Your task to perform on an android device: Search for Italian restaurants on Maps Image 0: 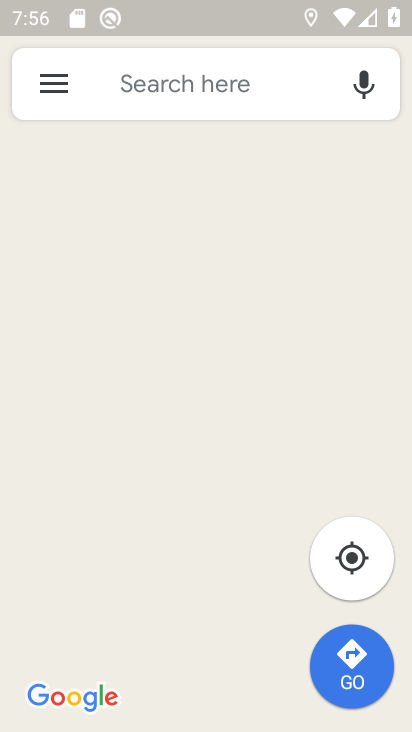
Step 0: press home button
Your task to perform on an android device: Search for Italian restaurants on Maps Image 1: 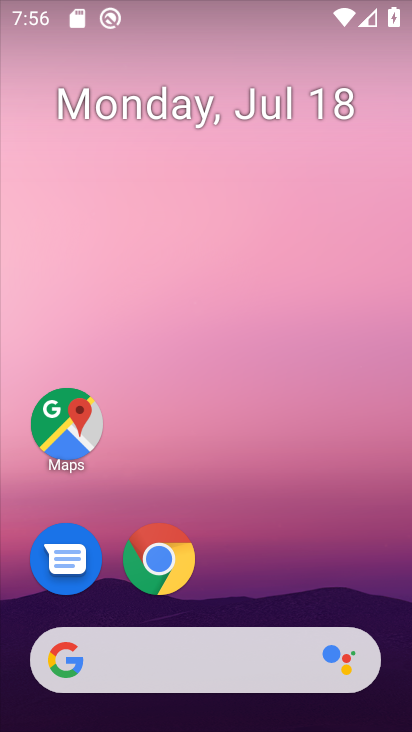
Step 1: drag from (351, 584) to (389, 133)
Your task to perform on an android device: Search for Italian restaurants on Maps Image 2: 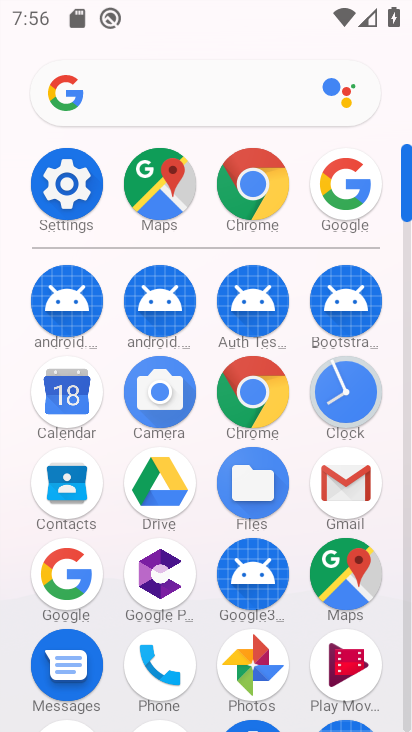
Step 2: click (347, 569)
Your task to perform on an android device: Search for Italian restaurants on Maps Image 3: 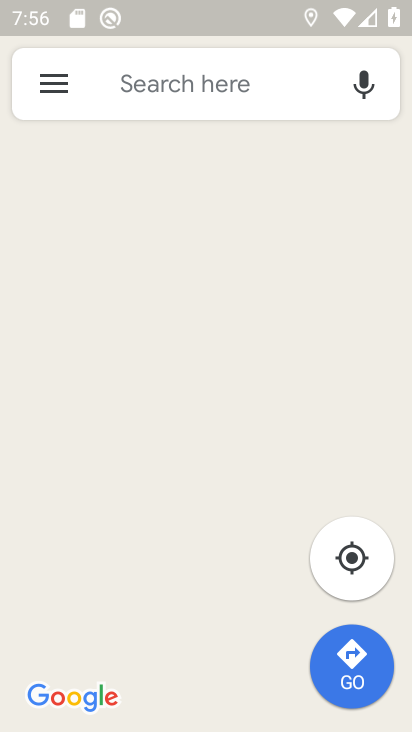
Step 3: click (178, 90)
Your task to perform on an android device: Search for Italian restaurants on Maps Image 4: 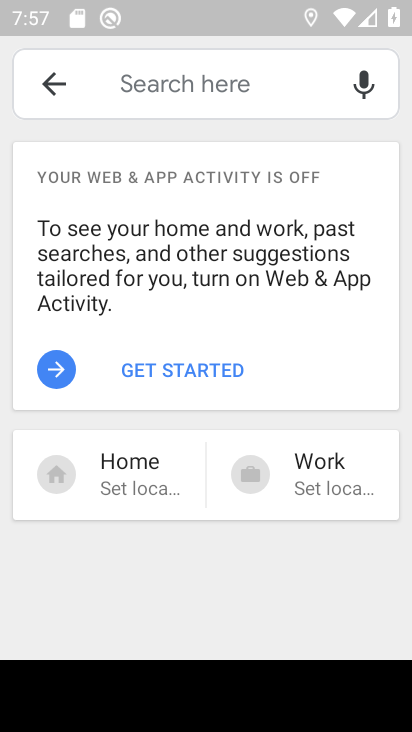
Step 4: type "italian restaurants"
Your task to perform on an android device: Search for Italian restaurants on Maps Image 5: 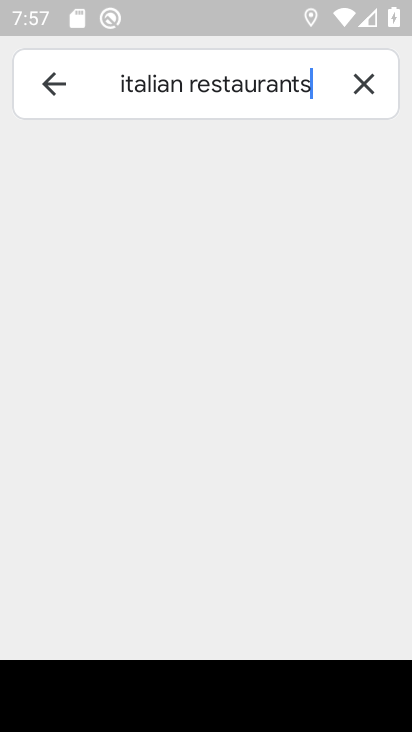
Step 5: task complete